Your task to perform on an android device: turn off picture-in-picture Image 0: 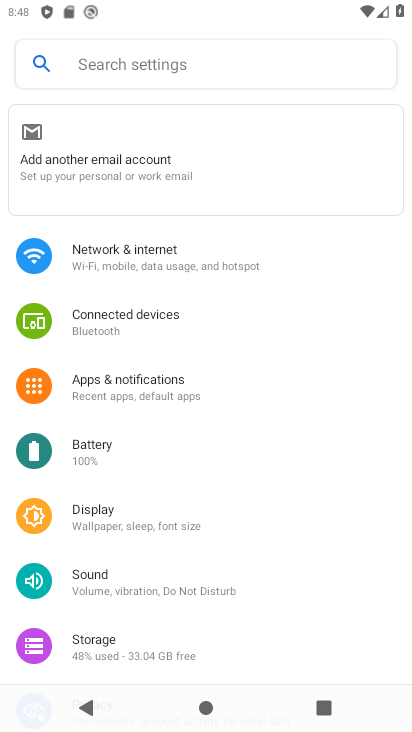
Step 0: drag from (337, 485) to (352, 239)
Your task to perform on an android device: turn off picture-in-picture Image 1: 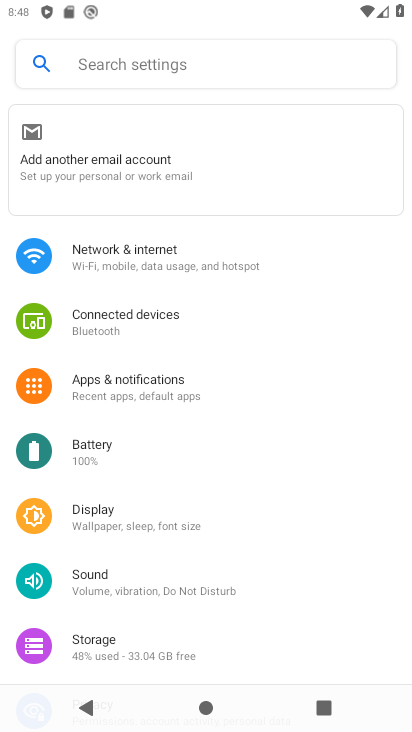
Step 1: press back button
Your task to perform on an android device: turn off picture-in-picture Image 2: 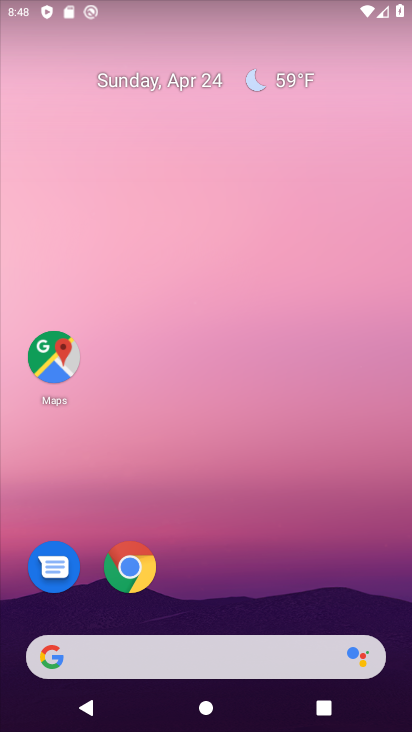
Step 2: click (132, 569)
Your task to perform on an android device: turn off picture-in-picture Image 3: 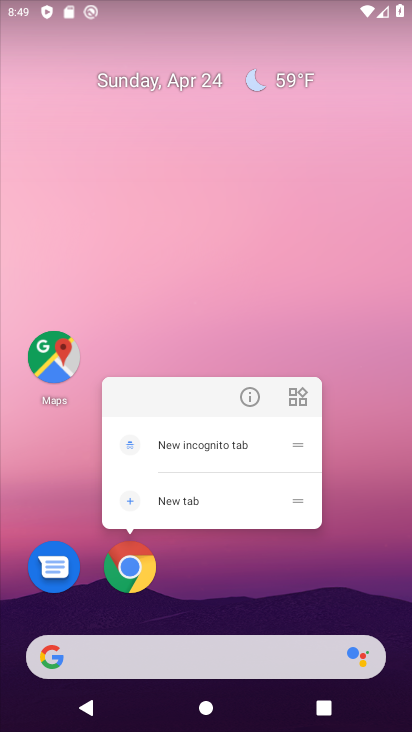
Step 3: click (251, 396)
Your task to perform on an android device: turn off picture-in-picture Image 4: 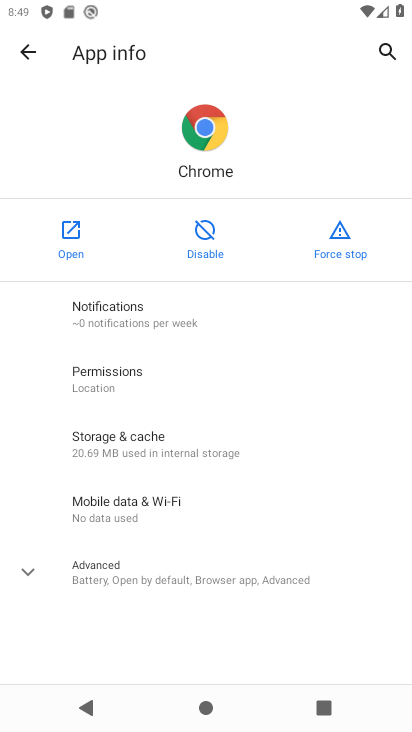
Step 4: drag from (272, 533) to (277, 305)
Your task to perform on an android device: turn off picture-in-picture Image 5: 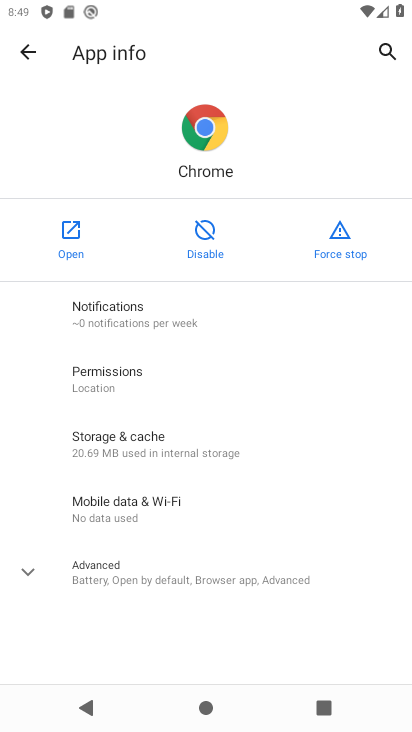
Step 5: click (42, 571)
Your task to perform on an android device: turn off picture-in-picture Image 6: 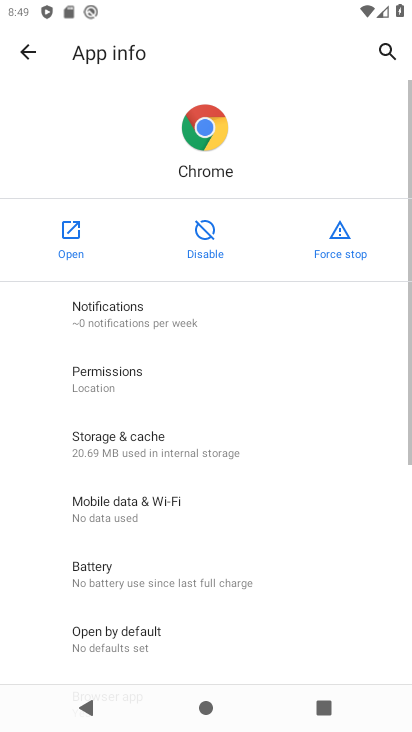
Step 6: drag from (312, 457) to (297, 379)
Your task to perform on an android device: turn off picture-in-picture Image 7: 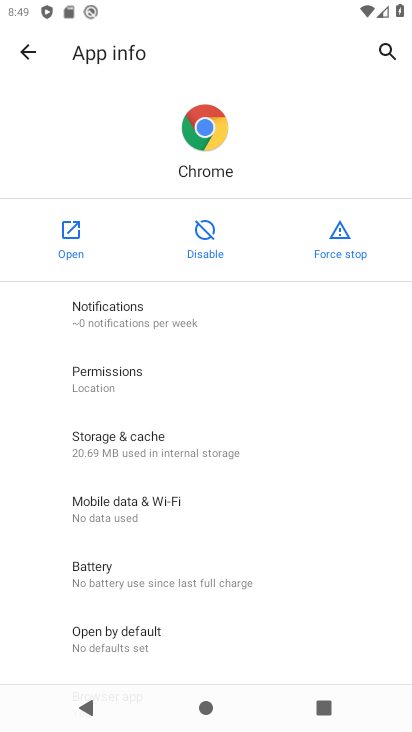
Step 7: drag from (342, 627) to (343, 259)
Your task to perform on an android device: turn off picture-in-picture Image 8: 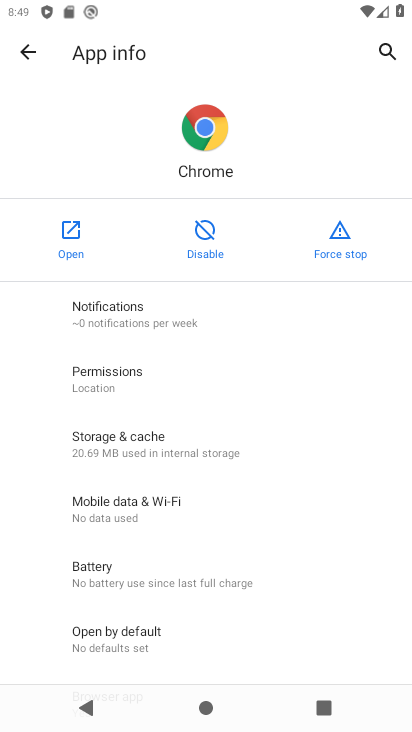
Step 8: drag from (368, 450) to (373, 300)
Your task to perform on an android device: turn off picture-in-picture Image 9: 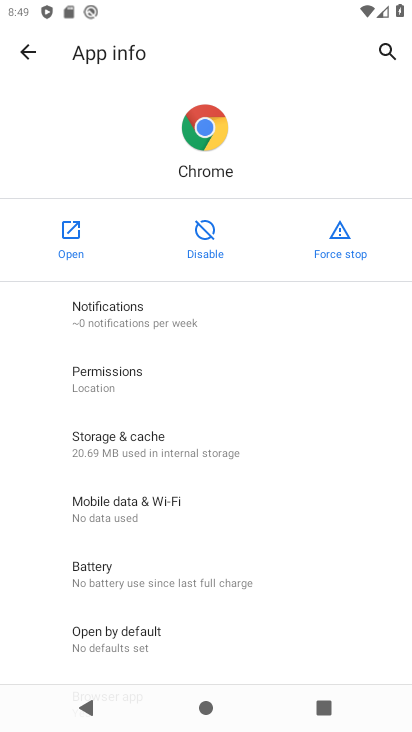
Step 9: drag from (310, 650) to (324, 319)
Your task to perform on an android device: turn off picture-in-picture Image 10: 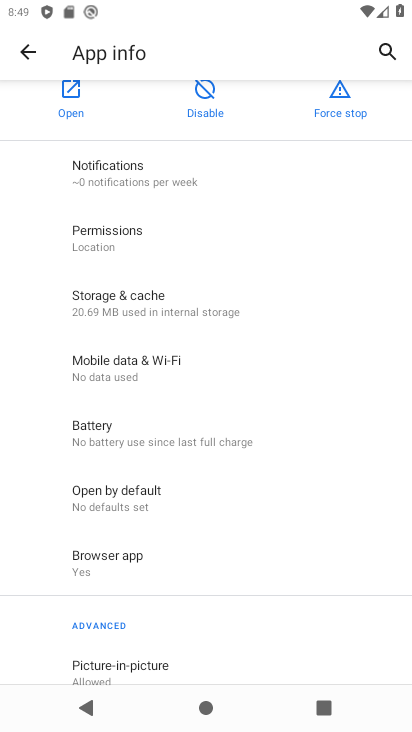
Step 10: drag from (299, 645) to (299, 386)
Your task to perform on an android device: turn off picture-in-picture Image 11: 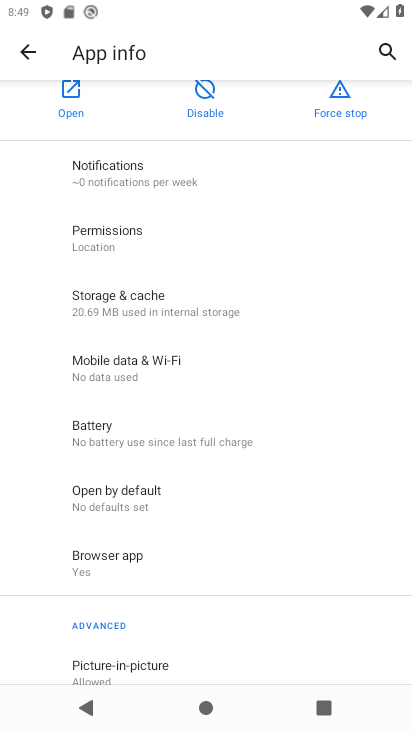
Step 11: drag from (313, 482) to (322, 272)
Your task to perform on an android device: turn off picture-in-picture Image 12: 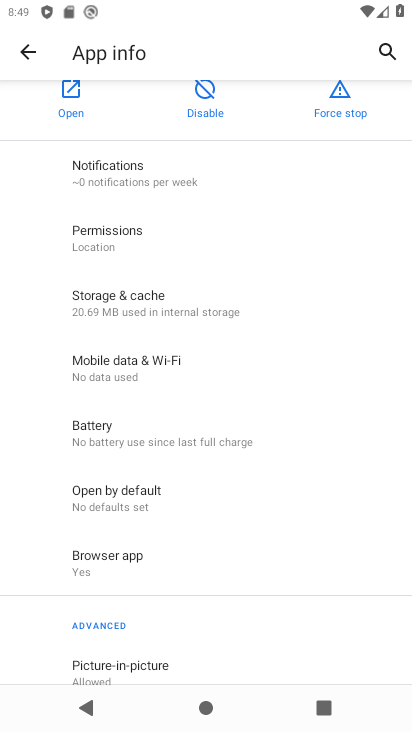
Step 12: click (119, 673)
Your task to perform on an android device: turn off picture-in-picture Image 13: 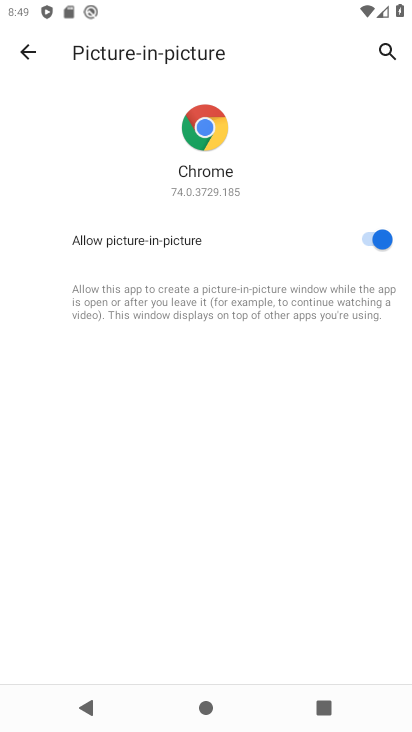
Step 13: click (369, 229)
Your task to perform on an android device: turn off picture-in-picture Image 14: 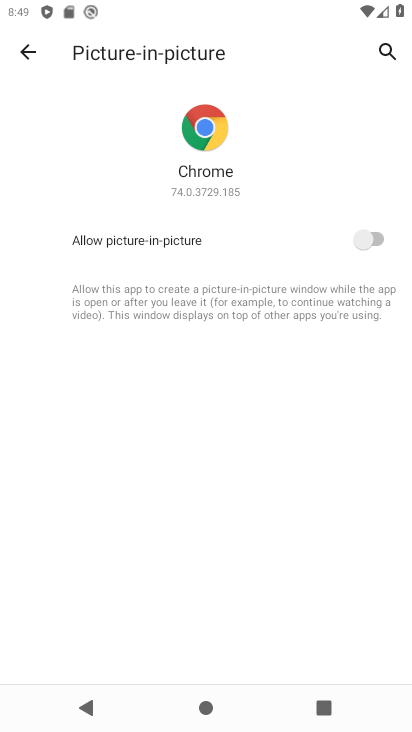
Step 14: task complete